Your task to perform on an android device: check android version Image 0: 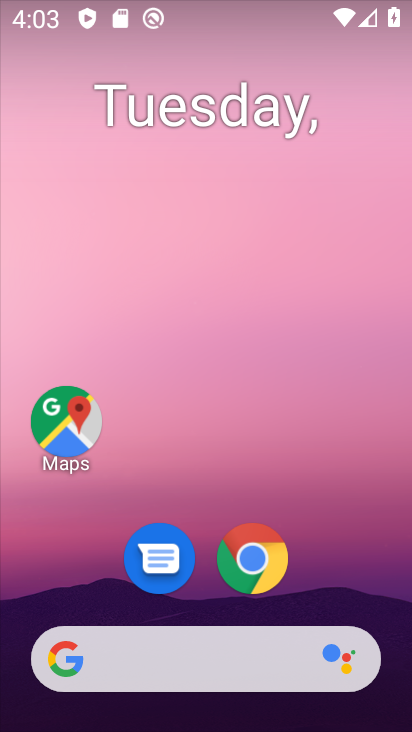
Step 0: drag from (360, 586) to (270, 250)
Your task to perform on an android device: check android version Image 1: 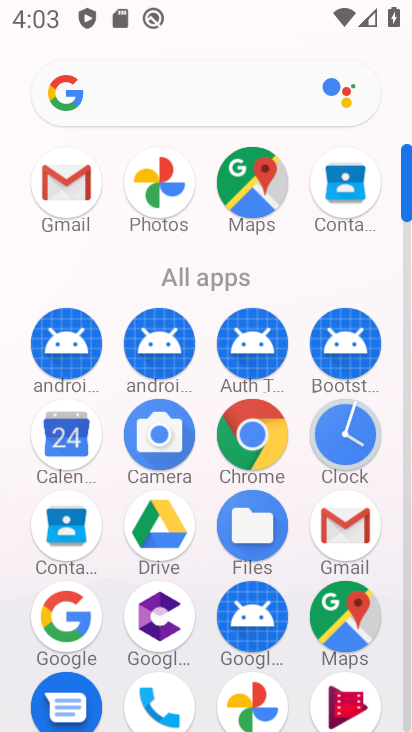
Step 1: click (408, 697)
Your task to perform on an android device: check android version Image 2: 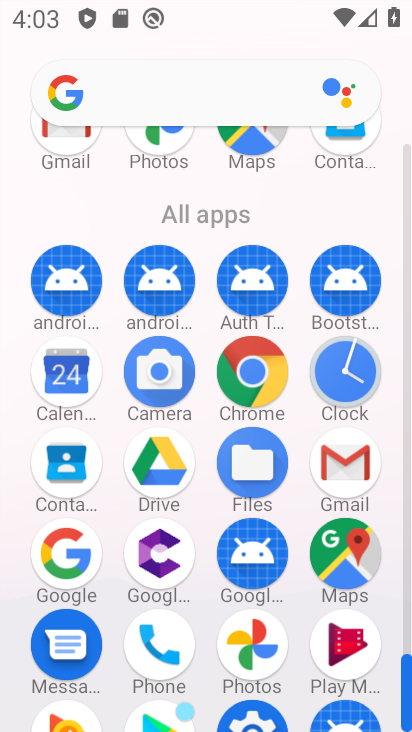
Step 2: click (262, 717)
Your task to perform on an android device: check android version Image 3: 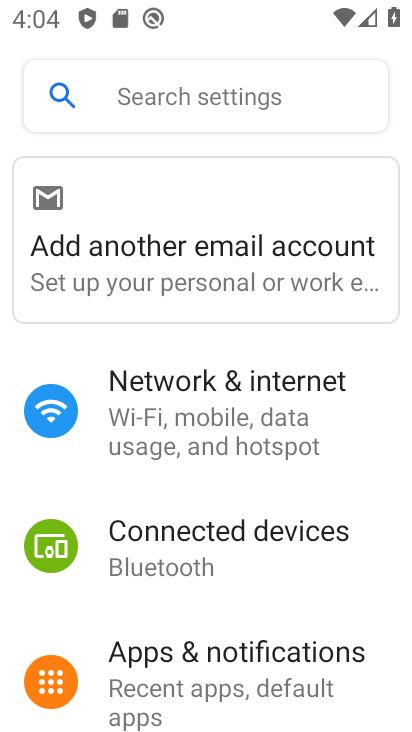
Step 3: task complete